Your task to perform on an android device: open sync settings in chrome Image 0: 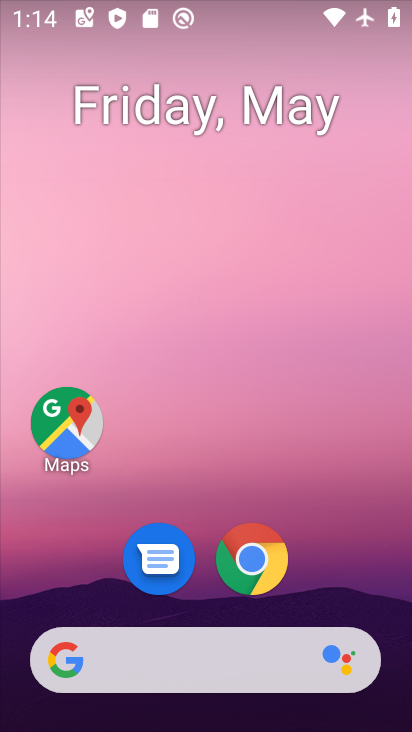
Step 0: click (245, 560)
Your task to perform on an android device: open sync settings in chrome Image 1: 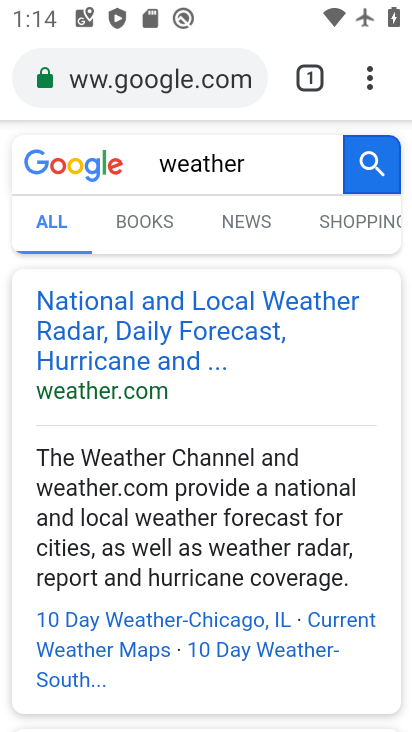
Step 1: drag from (387, 81) to (166, 624)
Your task to perform on an android device: open sync settings in chrome Image 2: 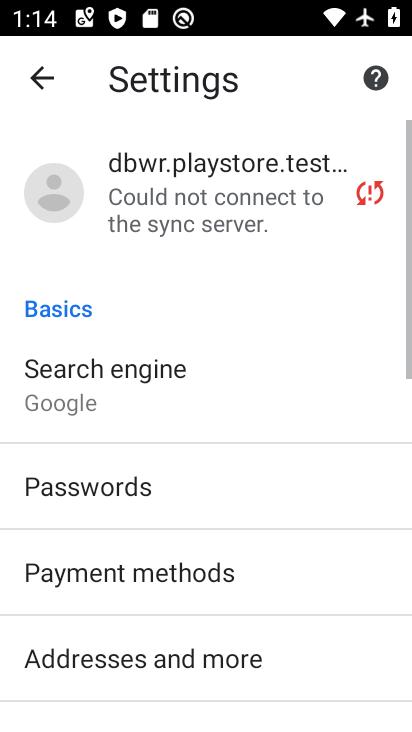
Step 2: click (181, 162)
Your task to perform on an android device: open sync settings in chrome Image 3: 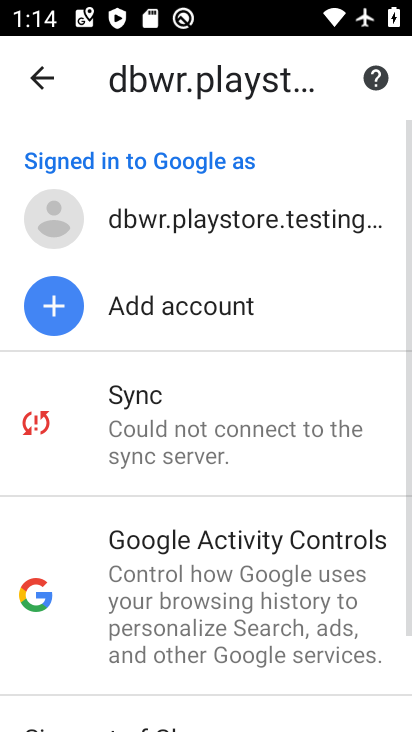
Step 3: click (95, 423)
Your task to perform on an android device: open sync settings in chrome Image 4: 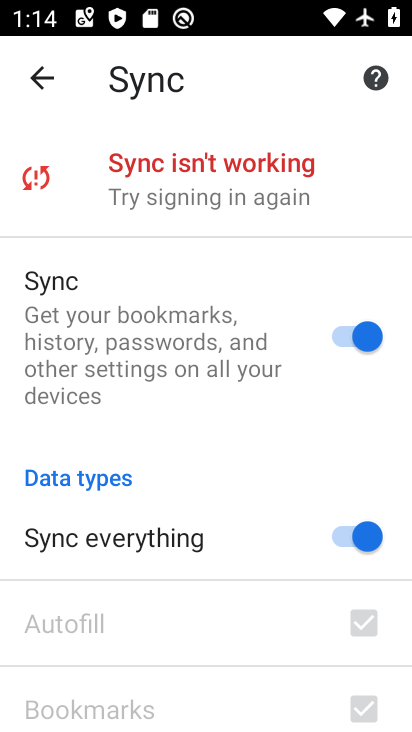
Step 4: task complete